Your task to perform on an android device: change timer sound Image 0: 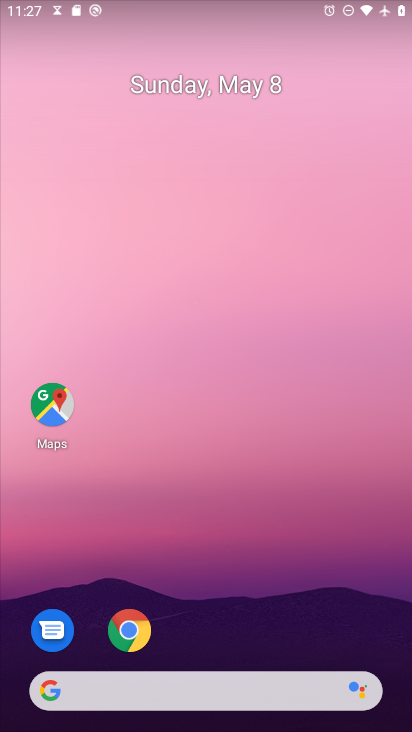
Step 0: drag from (166, 628) to (310, 68)
Your task to perform on an android device: change timer sound Image 1: 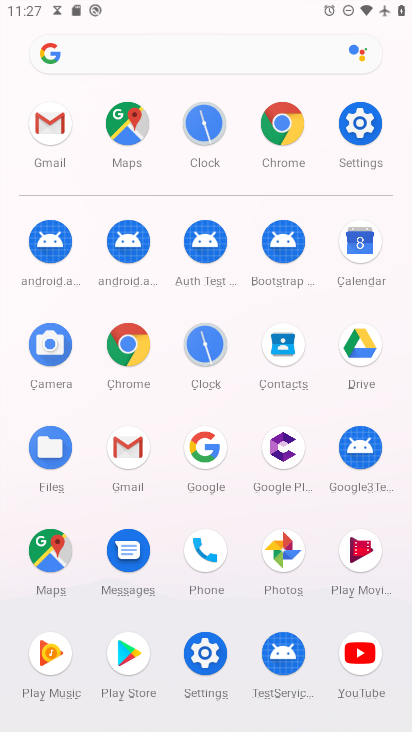
Step 1: click (209, 346)
Your task to perform on an android device: change timer sound Image 2: 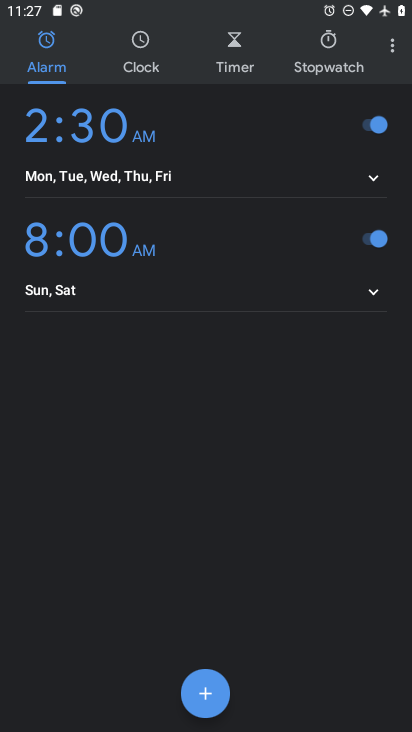
Step 2: click (389, 51)
Your task to perform on an android device: change timer sound Image 3: 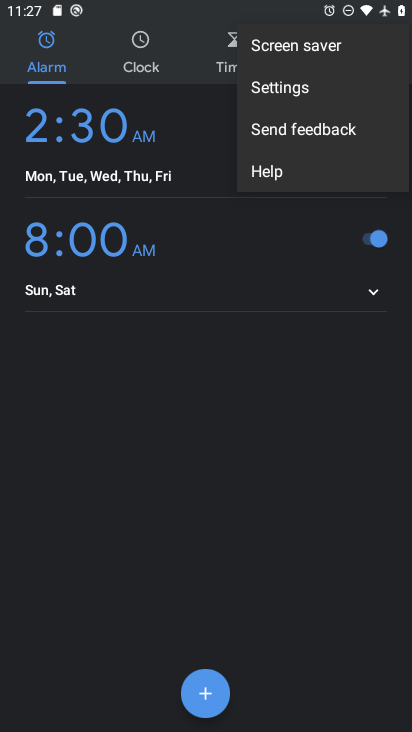
Step 3: click (296, 85)
Your task to perform on an android device: change timer sound Image 4: 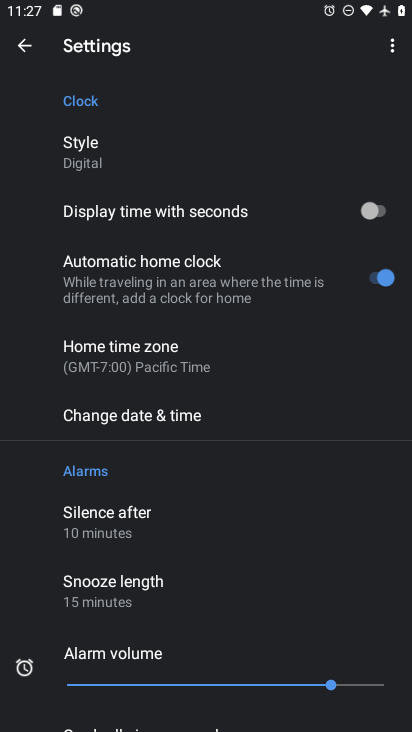
Step 4: drag from (224, 599) to (353, 185)
Your task to perform on an android device: change timer sound Image 5: 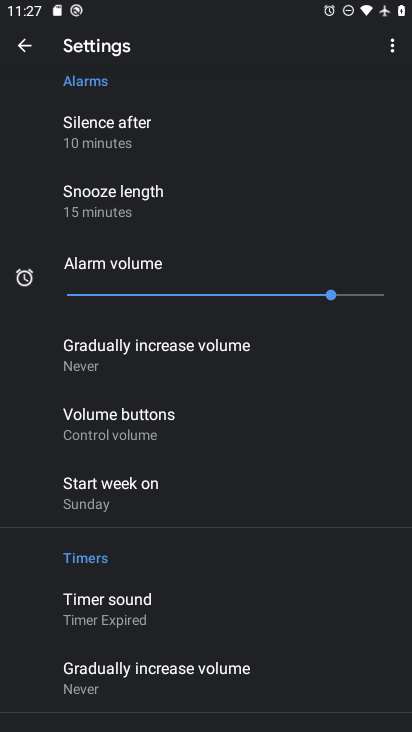
Step 5: click (134, 607)
Your task to perform on an android device: change timer sound Image 6: 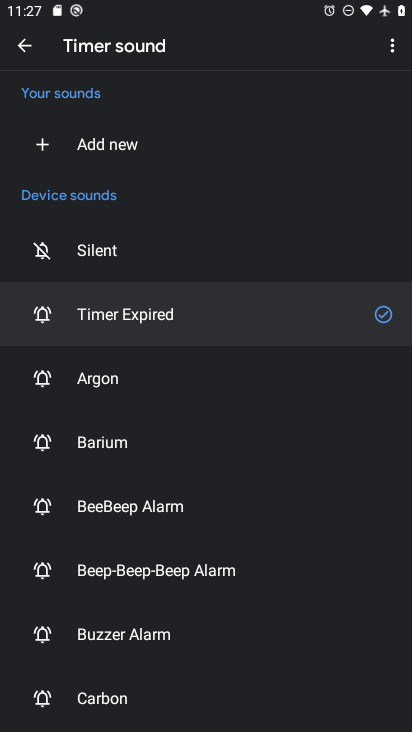
Step 6: click (97, 378)
Your task to perform on an android device: change timer sound Image 7: 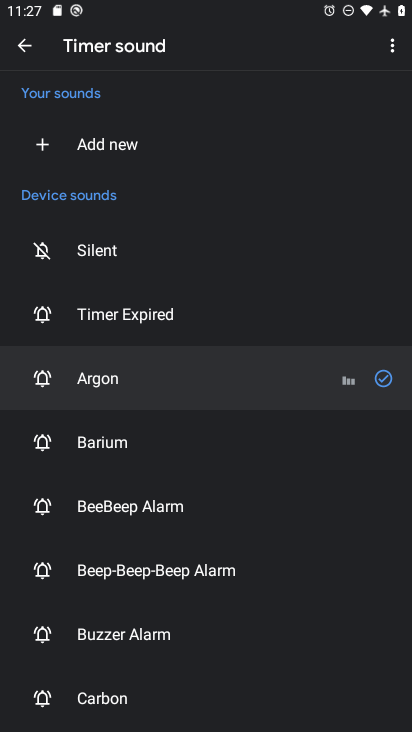
Step 7: task complete